Your task to perform on an android device: toggle sleep mode Image 0: 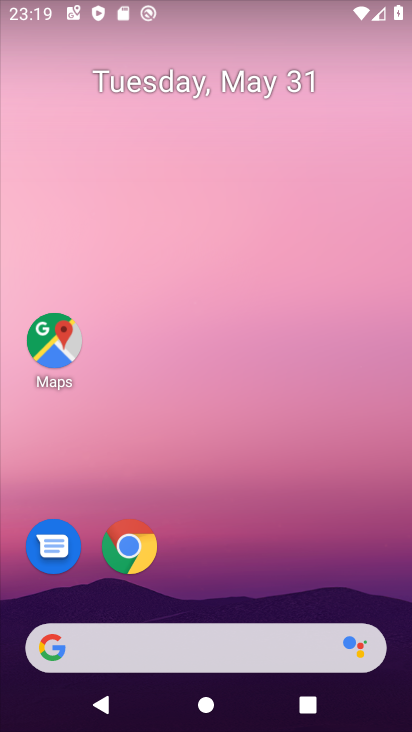
Step 0: drag from (244, 583) to (196, 145)
Your task to perform on an android device: toggle sleep mode Image 1: 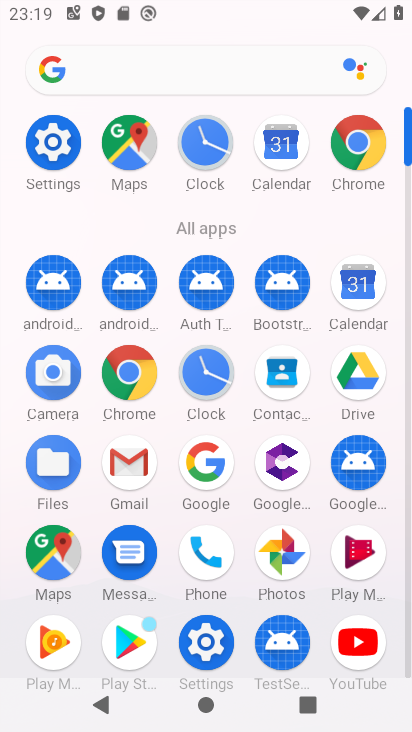
Step 1: click (57, 129)
Your task to perform on an android device: toggle sleep mode Image 2: 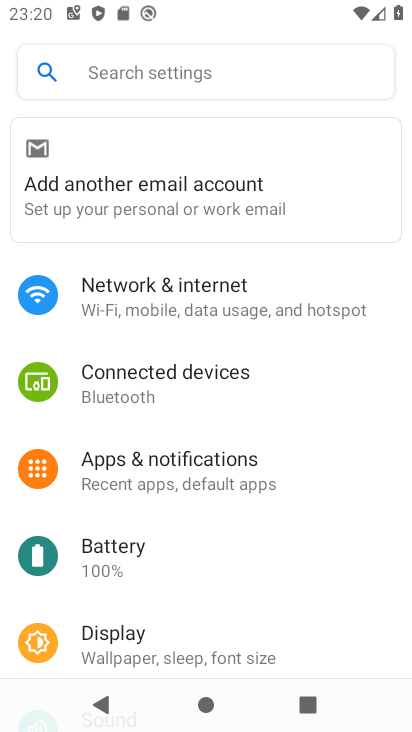
Step 2: click (142, 656)
Your task to perform on an android device: toggle sleep mode Image 3: 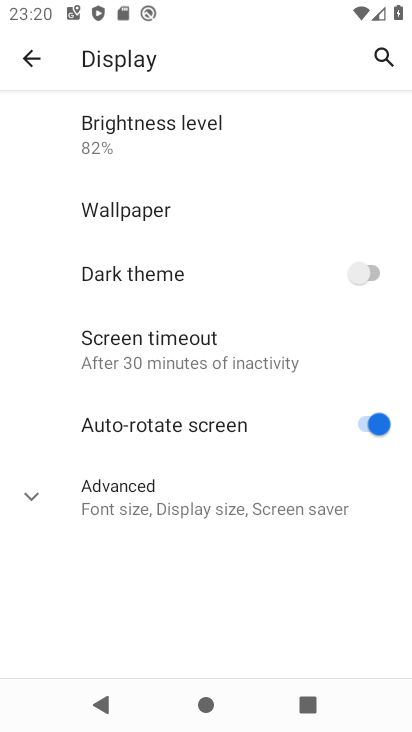
Step 3: click (194, 488)
Your task to perform on an android device: toggle sleep mode Image 4: 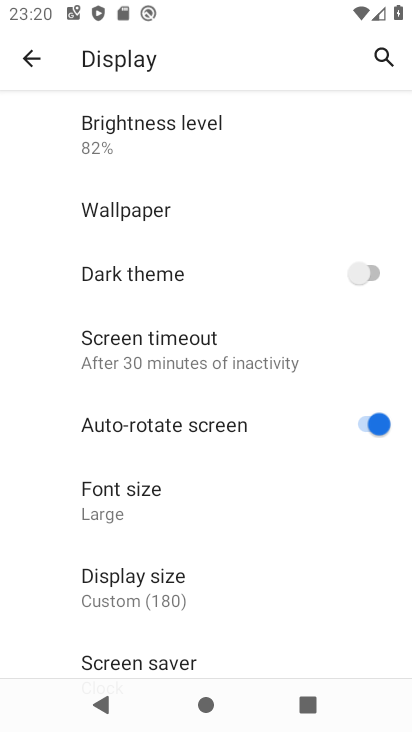
Step 4: task complete